Your task to perform on an android device: Open the clock app Image 0: 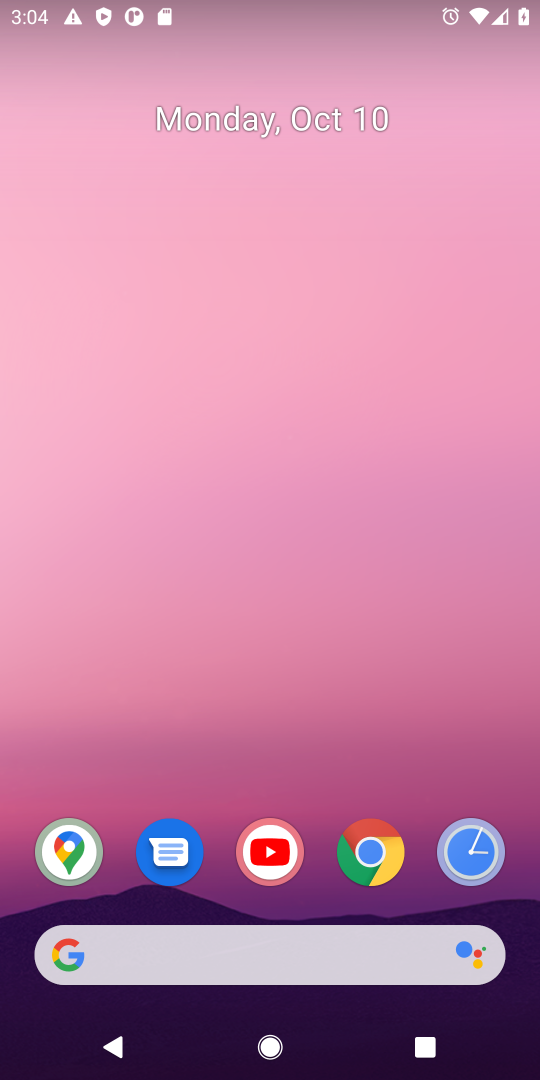
Step 0: click (444, 854)
Your task to perform on an android device: Open the clock app Image 1: 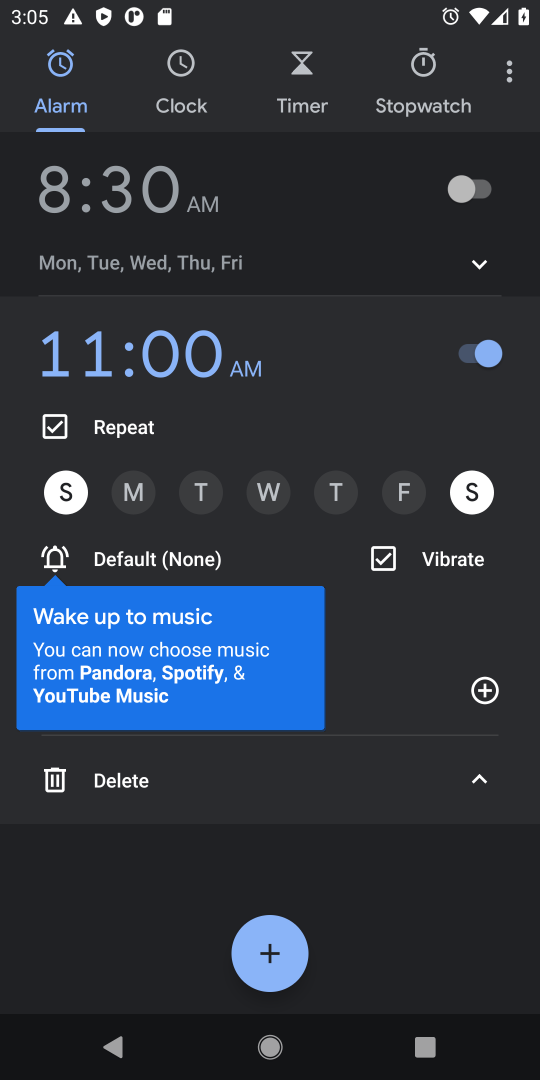
Step 1: task complete